Your task to perform on an android device: turn off location history Image 0: 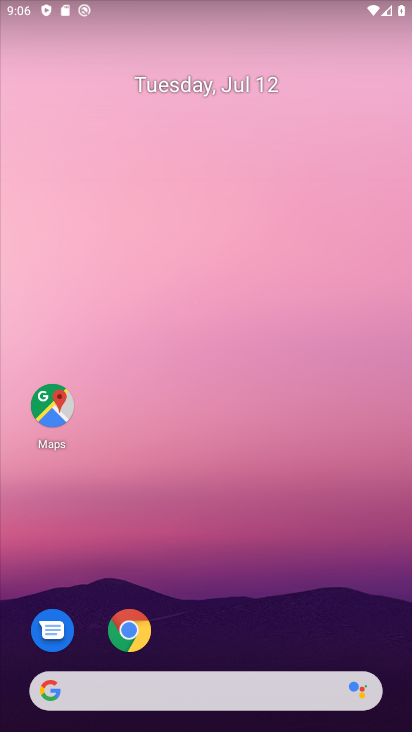
Step 0: drag from (159, 685) to (277, 56)
Your task to perform on an android device: turn off location history Image 1: 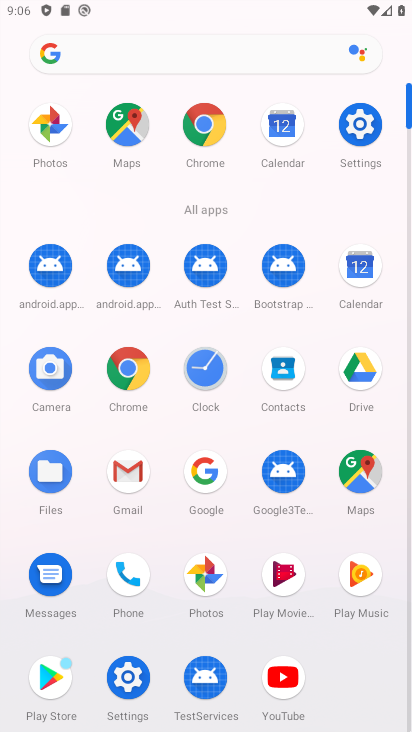
Step 1: click (132, 139)
Your task to perform on an android device: turn off location history Image 2: 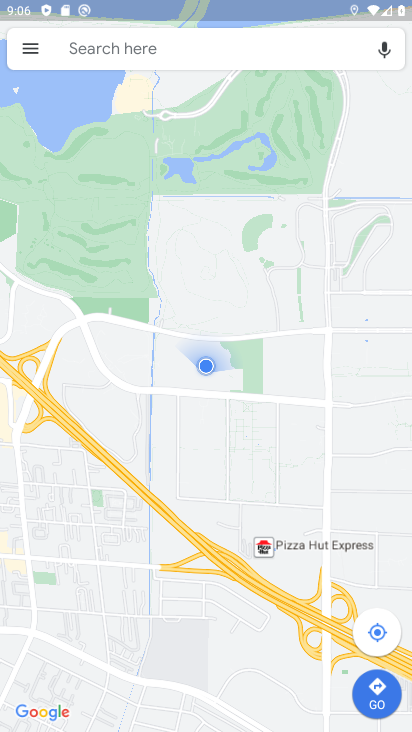
Step 2: click (33, 49)
Your task to perform on an android device: turn off location history Image 3: 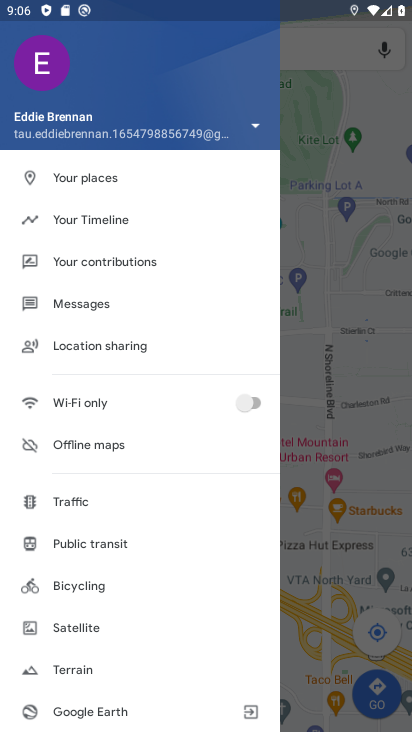
Step 3: click (118, 218)
Your task to perform on an android device: turn off location history Image 4: 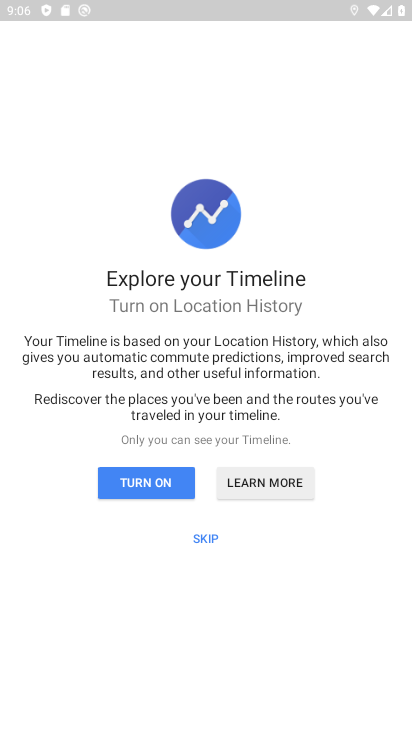
Step 4: click (207, 541)
Your task to perform on an android device: turn off location history Image 5: 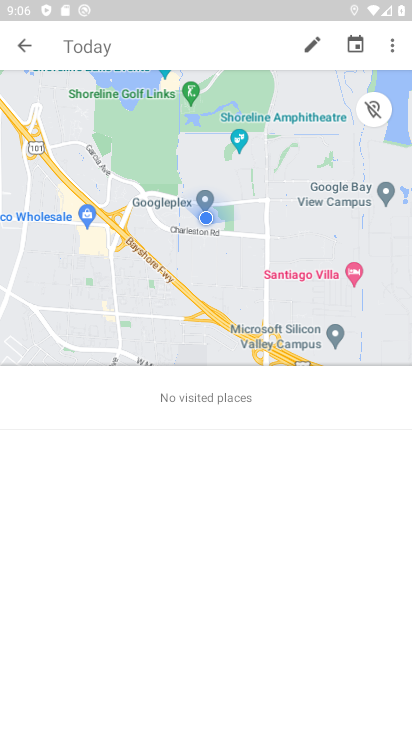
Step 5: click (393, 40)
Your task to perform on an android device: turn off location history Image 6: 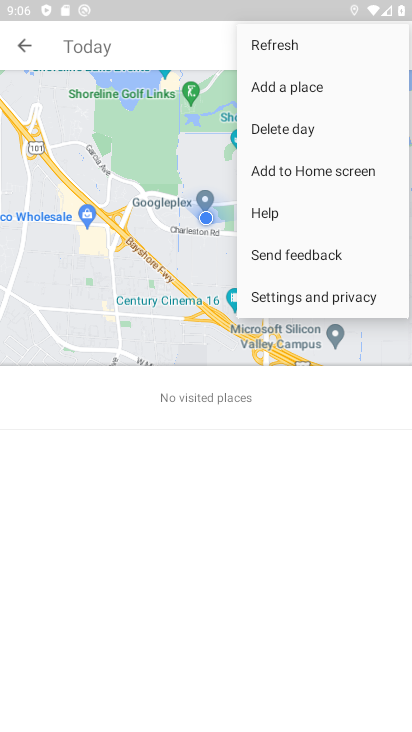
Step 6: click (311, 293)
Your task to perform on an android device: turn off location history Image 7: 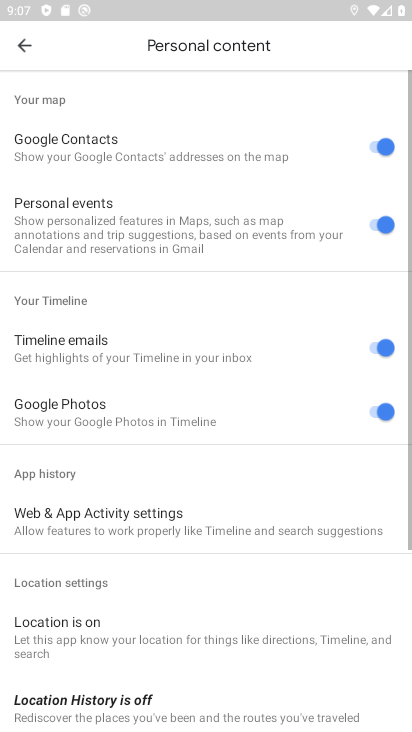
Step 7: drag from (173, 616) to (264, 272)
Your task to perform on an android device: turn off location history Image 8: 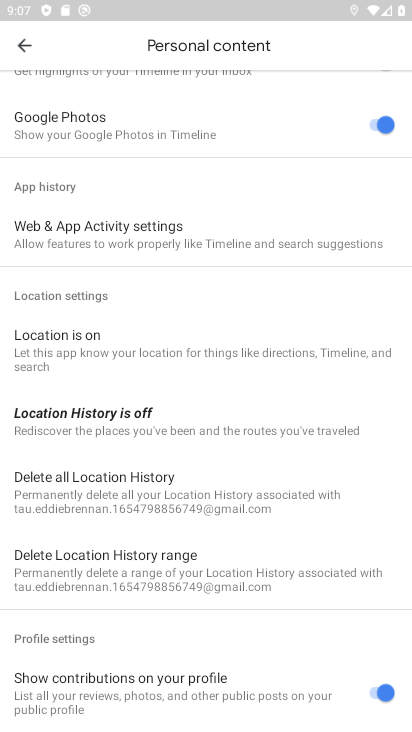
Step 8: click (126, 420)
Your task to perform on an android device: turn off location history Image 9: 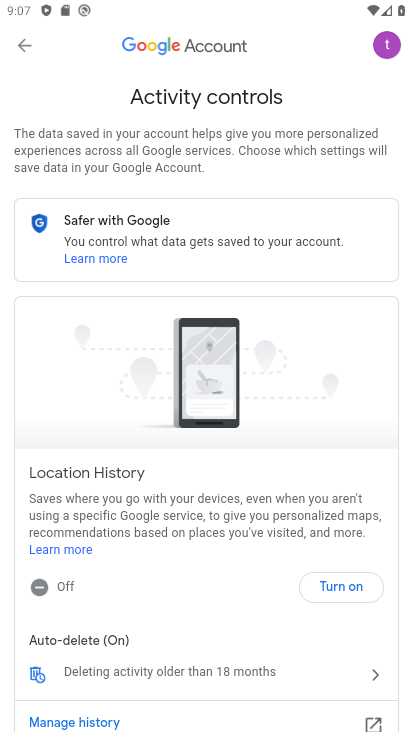
Step 9: task complete